Your task to perform on an android device: Add "corsair k70" to the cart on amazon.com Image 0: 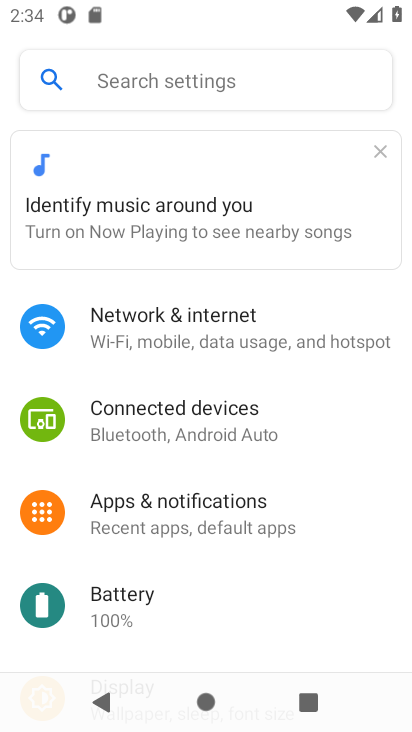
Step 0: press home button
Your task to perform on an android device: Add "corsair k70" to the cart on amazon.com Image 1: 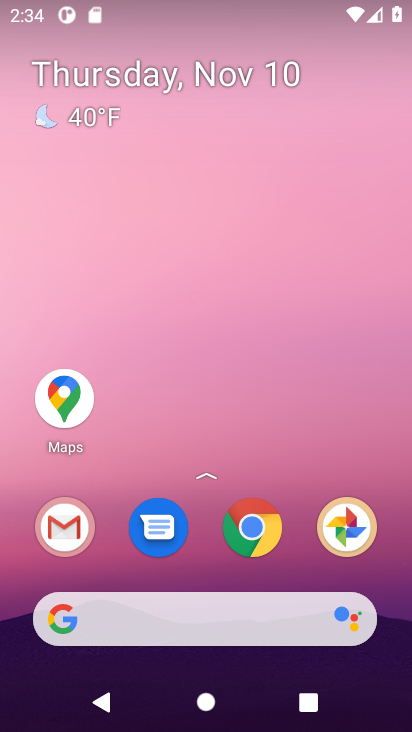
Step 1: drag from (194, 489) to (136, 49)
Your task to perform on an android device: Add "corsair k70" to the cart on amazon.com Image 2: 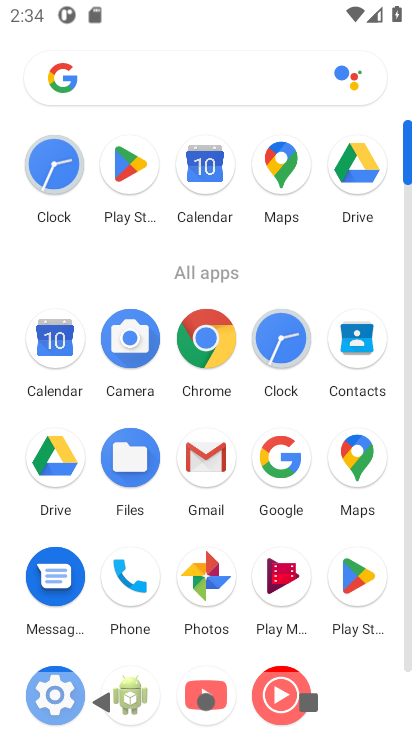
Step 2: click (211, 353)
Your task to perform on an android device: Add "corsair k70" to the cart on amazon.com Image 3: 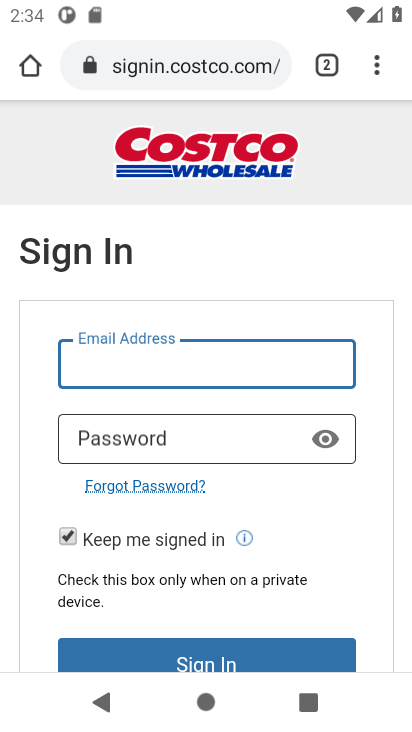
Step 3: click (141, 58)
Your task to perform on an android device: Add "corsair k70" to the cart on amazon.com Image 4: 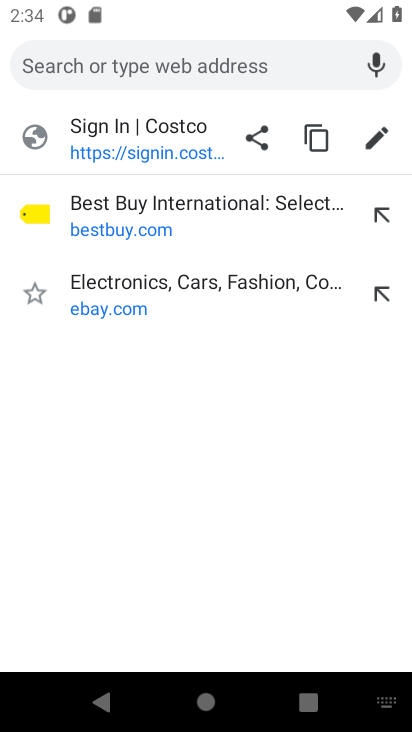
Step 4: type "amazon.com"
Your task to perform on an android device: Add "corsair k70" to the cart on amazon.com Image 5: 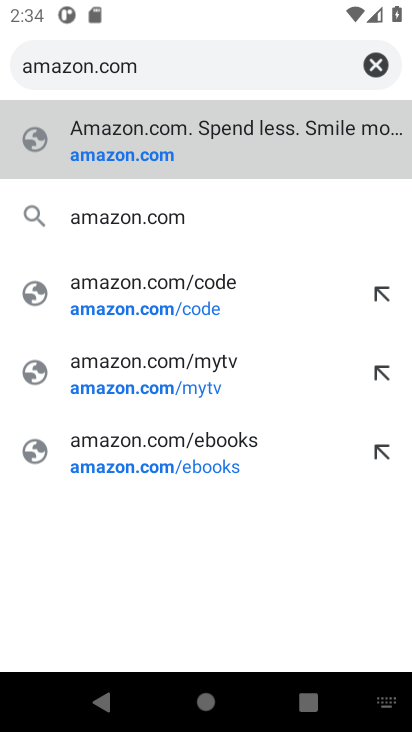
Step 5: press enter
Your task to perform on an android device: Add "corsair k70" to the cart on amazon.com Image 6: 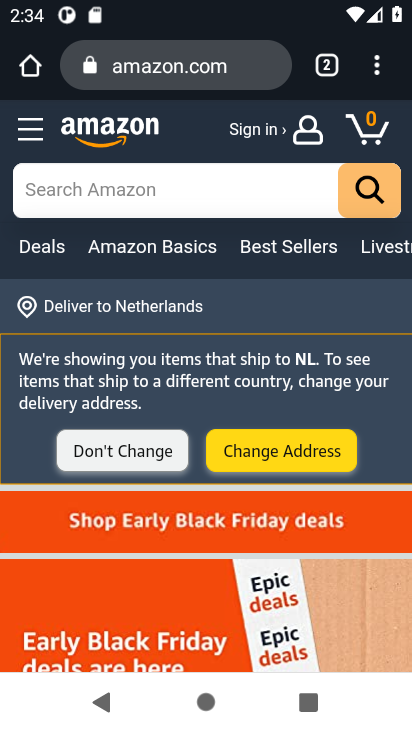
Step 6: click (69, 201)
Your task to perform on an android device: Add "corsair k70" to the cart on amazon.com Image 7: 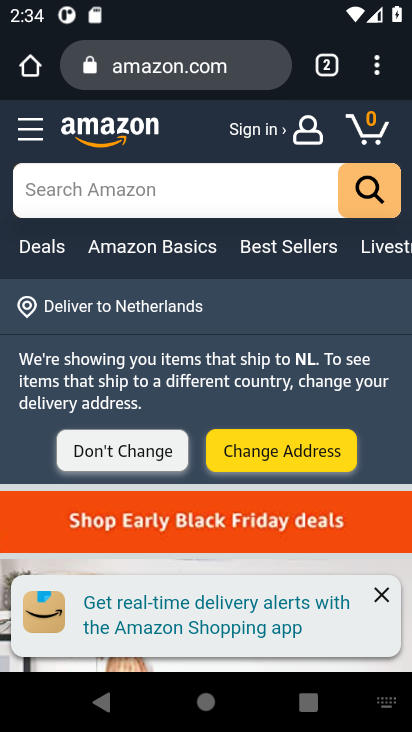
Step 7: type "corsair k70"
Your task to perform on an android device: Add "corsair k70" to the cart on amazon.com Image 8: 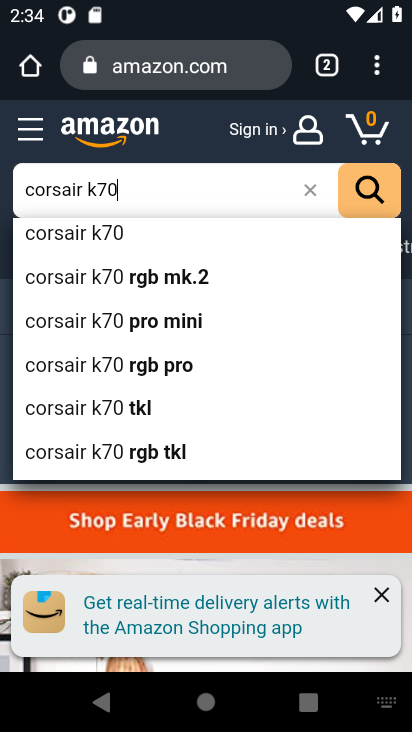
Step 8: press enter
Your task to perform on an android device: Add "corsair k70" to the cart on amazon.com Image 9: 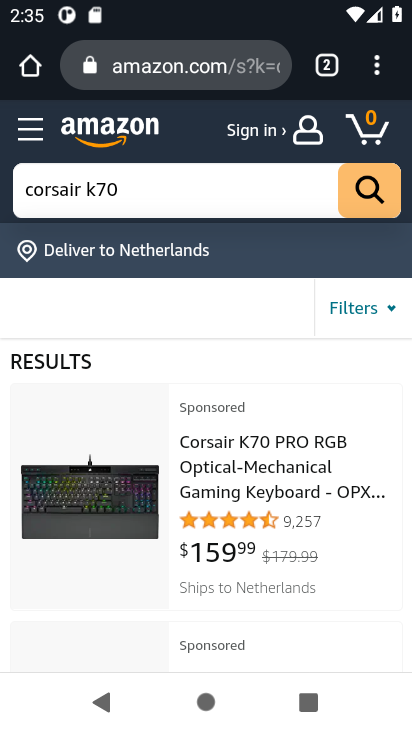
Step 9: click (213, 459)
Your task to perform on an android device: Add "corsair k70" to the cart on amazon.com Image 10: 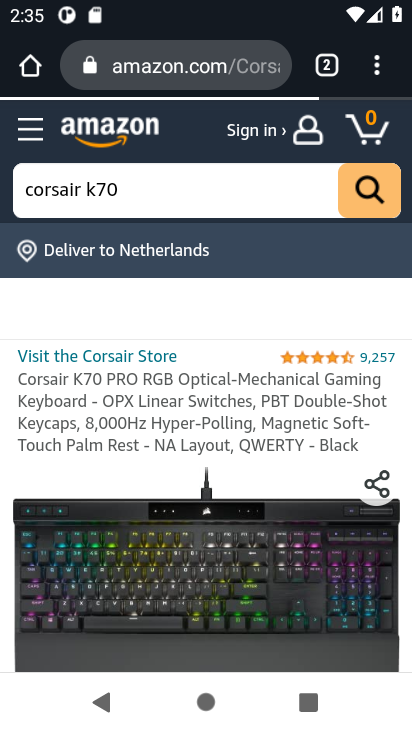
Step 10: drag from (231, 548) to (174, 187)
Your task to perform on an android device: Add "corsair k70" to the cart on amazon.com Image 11: 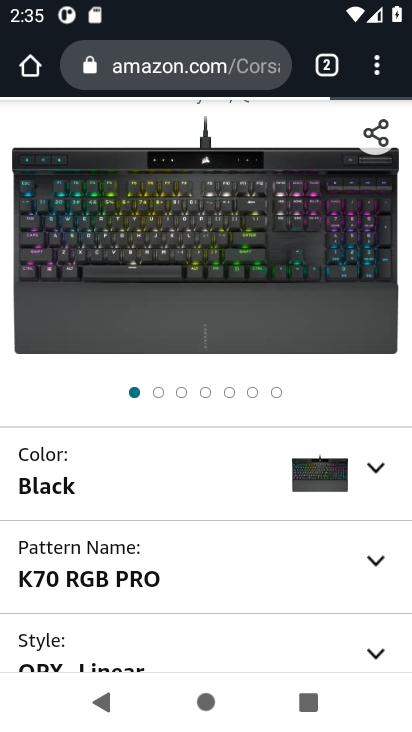
Step 11: drag from (252, 541) to (193, 149)
Your task to perform on an android device: Add "corsair k70" to the cart on amazon.com Image 12: 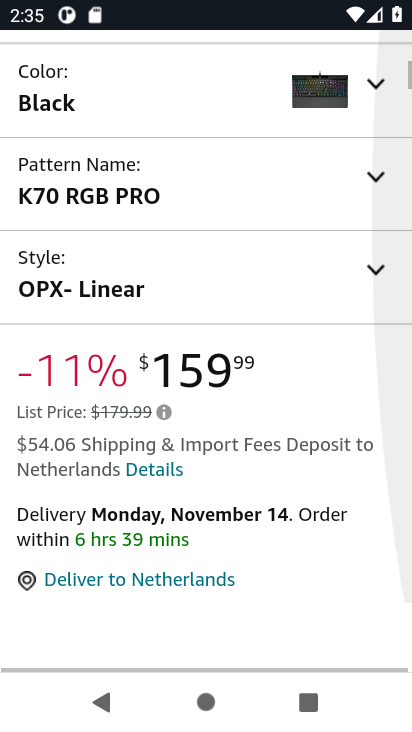
Step 12: drag from (238, 475) to (241, 203)
Your task to perform on an android device: Add "corsair k70" to the cart on amazon.com Image 13: 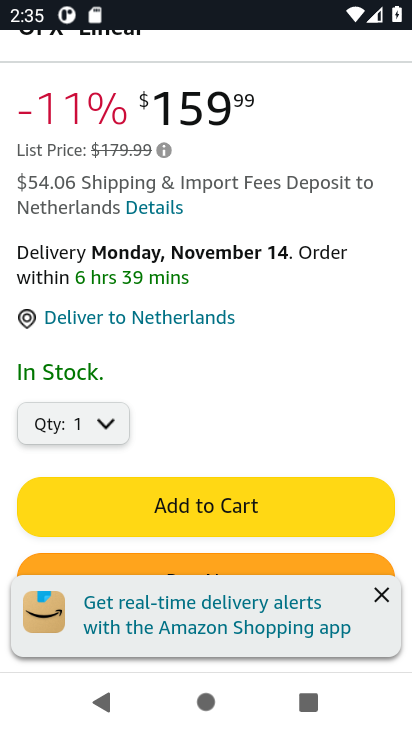
Step 13: click (235, 506)
Your task to perform on an android device: Add "corsair k70" to the cart on amazon.com Image 14: 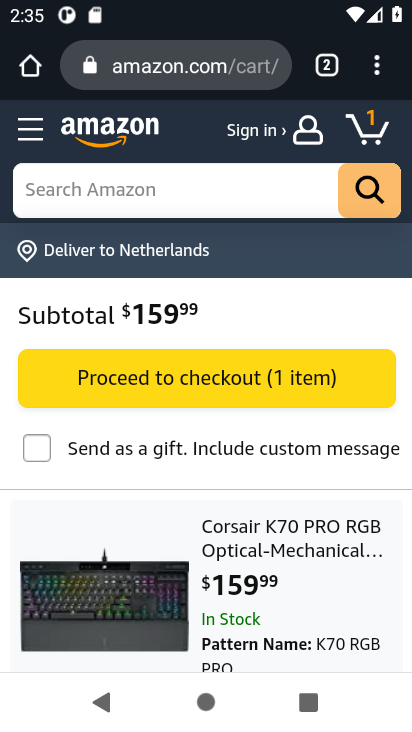
Step 14: drag from (230, 515) to (193, 226)
Your task to perform on an android device: Add "corsair k70" to the cart on amazon.com Image 15: 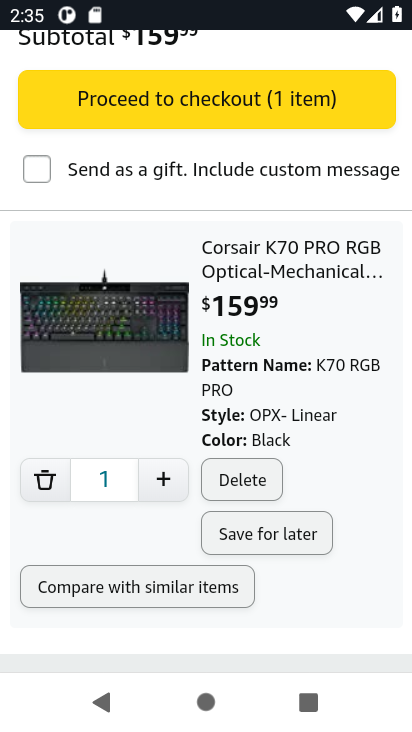
Step 15: drag from (214, 189) to (287, 492)
Your task to perform on an android device: Add "corsair k70" to the cart on amazon.com Image 16: 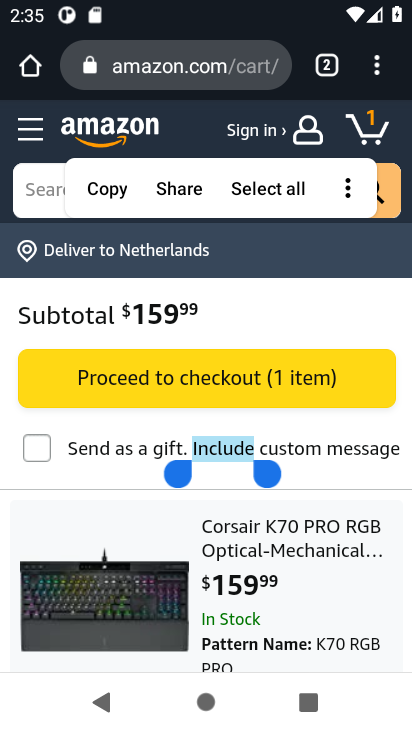
Step 16: drag from (281, 323) to (312, 468)
Your task to perform on an android device: Add "corsair k70" to the cart on amazon.com Image 17: 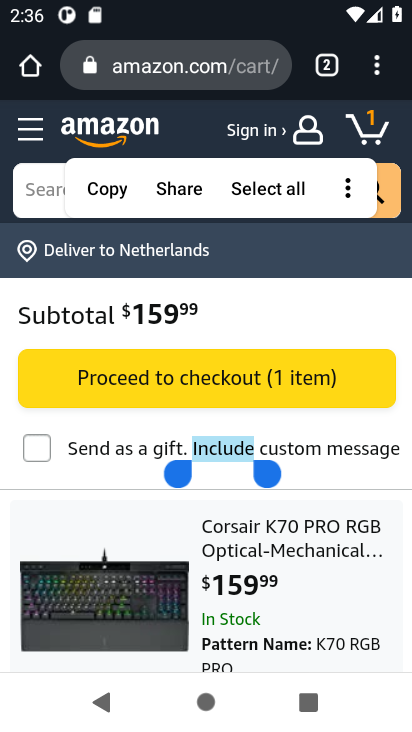
Step 17: click (350, 423)
Your task to perform on an android device: Add "corsair k70" to the cart on amazon.com Image 18: 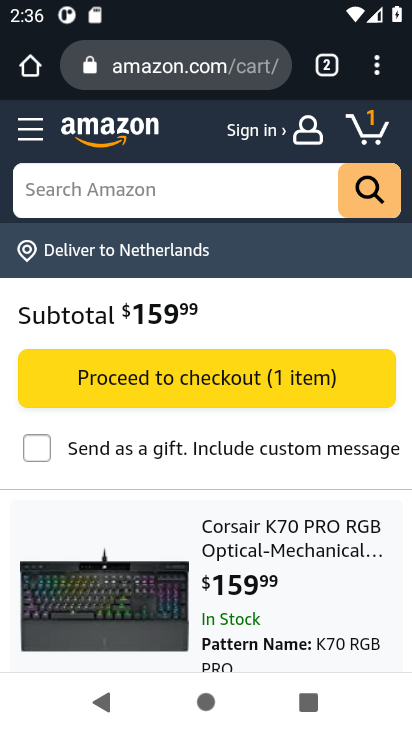
Step 18: drag from (216, 563) to (210, 256)
Your task to perform on an android device: Add "corsair k70" to the cart on amazon.com Image 19: 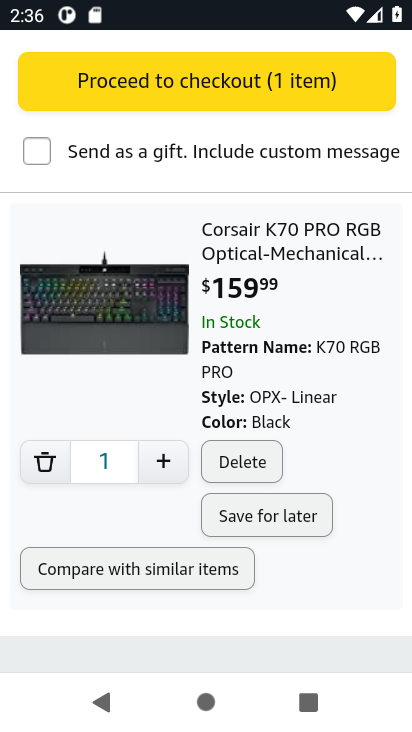
Step 19: drag from (253, 282) to (308, 500)
Your task to perform on an android device: Add "corsair k70" to the cart on amazon.com Image 20: 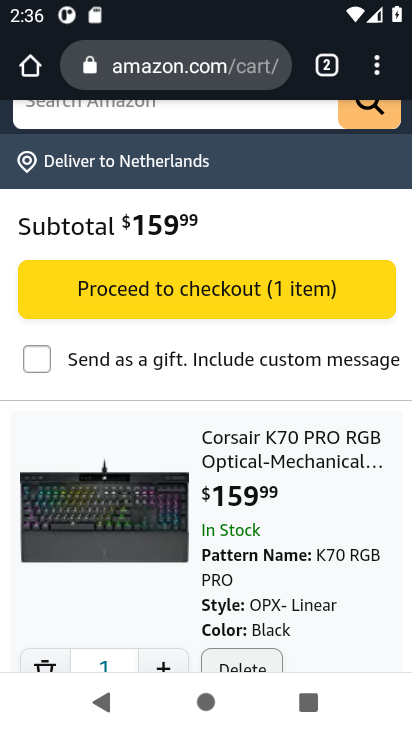
Step 20: drag from (247, 278) to (291, 485)
Your task to perform on an android device: Add "corsair k70" to the cart on amazon.com Image 21: 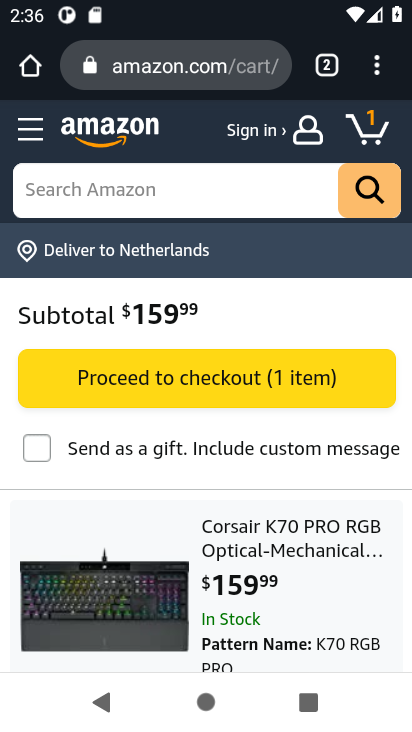
Step 21: drag from (247, 489) to (212, 297)
Your task to perform on an android device: Add "corsair k70" to the cart on amazon.com Image 22: 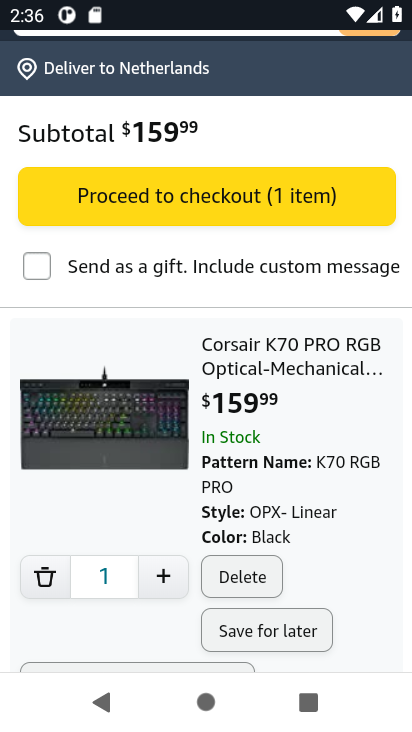
Step 22: click (312, 287)
Your task to perform on an android device: Add "corsair k70" to the cart on amazon.com Image 23: 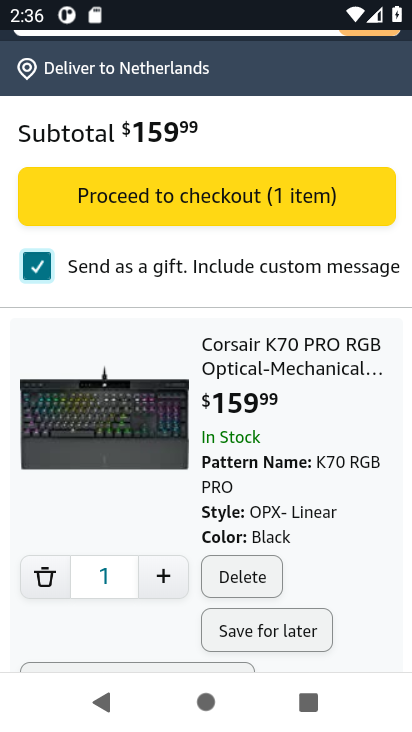
Step 23: task complete